Your task to perform on an android device: Open calendar and show me the second week of next month Image 0: 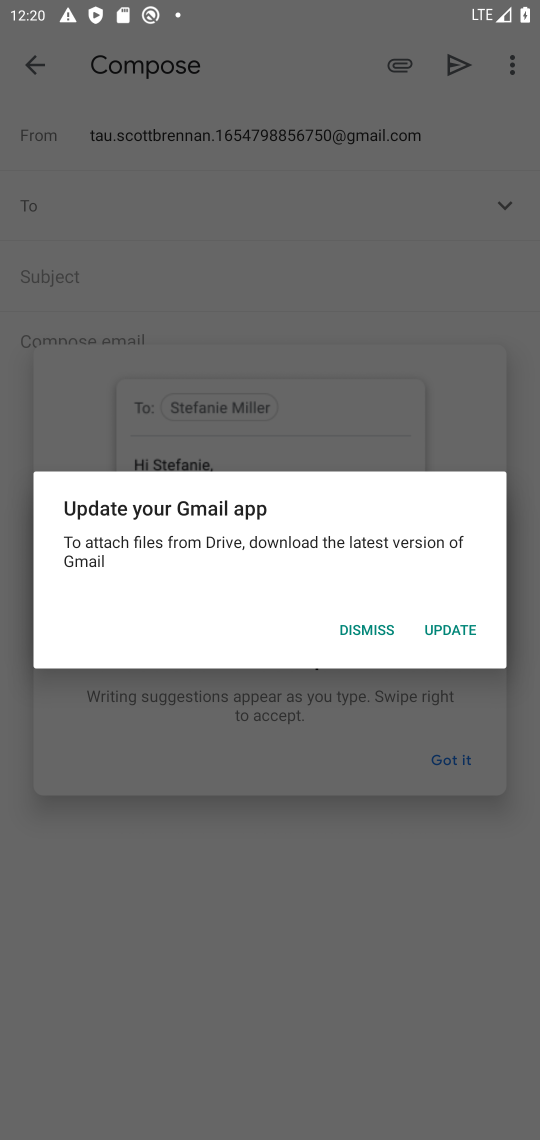
Step 0: press home button
Your task to perform on an android device: Open calendar and show me the second week of next month Image 1: 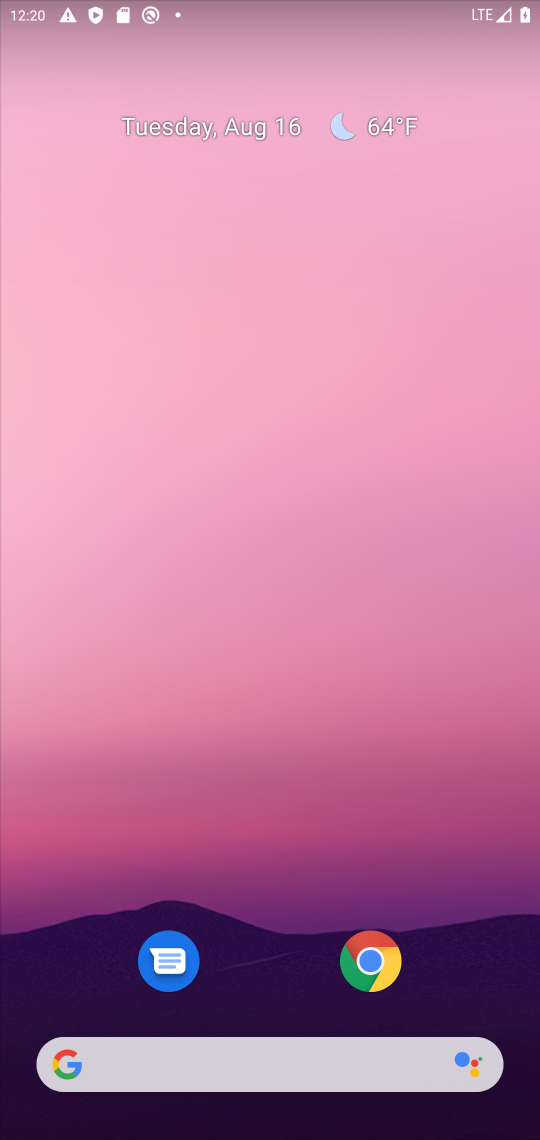
Step 1: drag from (249, 946) to (330, 3)
Your task to perform on an android device: Open calendar and show me the second week of next month Image 2: 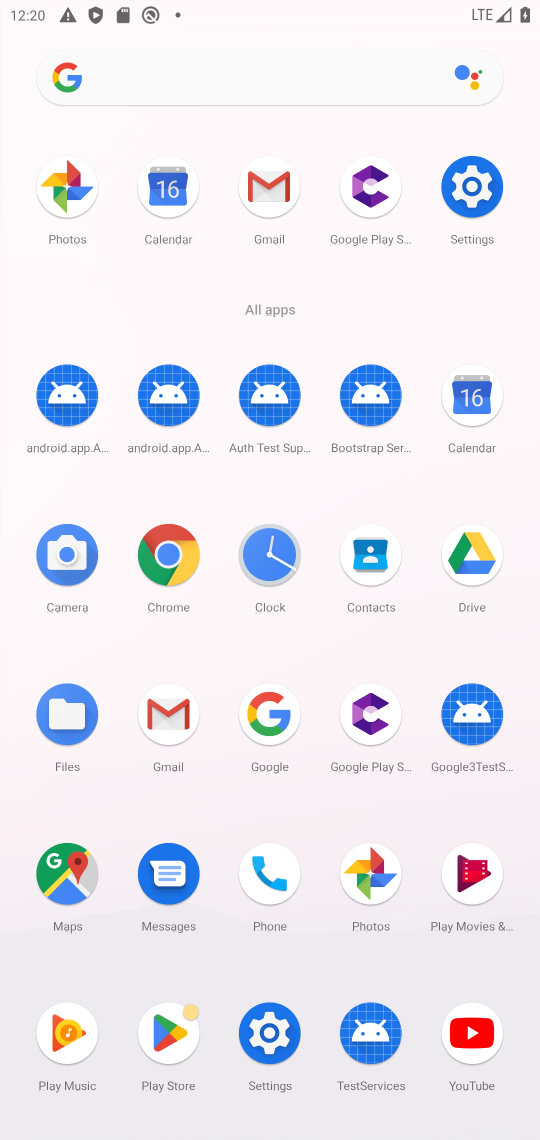
Step 2: click (472, 380)
Your task to perform on an android device: Open calendar and show me the second week of next month Image 3: 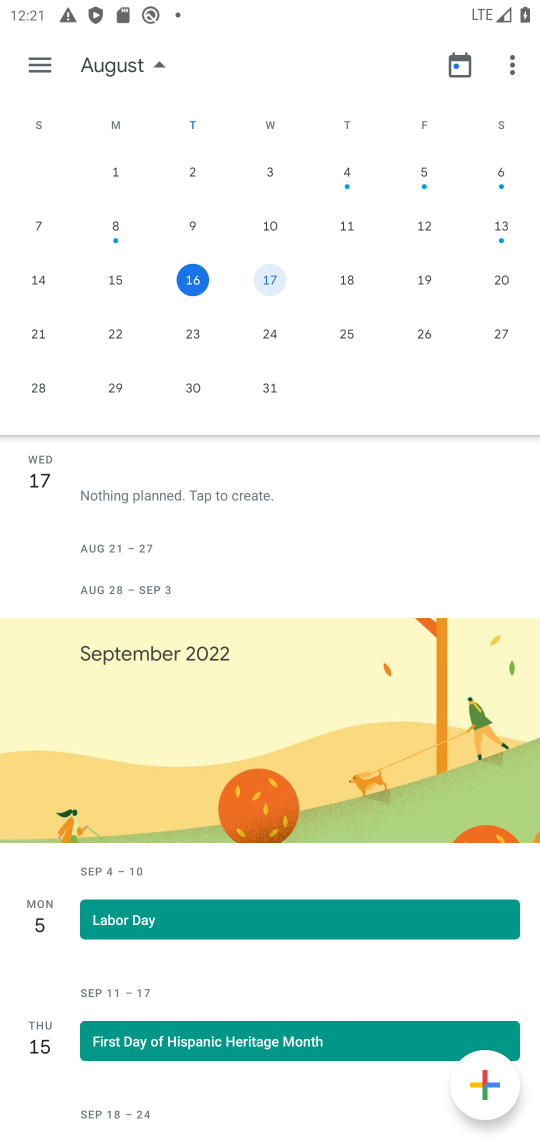
Step 3: drag from (456, 245) to (2, 251)
Your task to perform on an android device: Open calendar and show me the second week of next month Image 4: 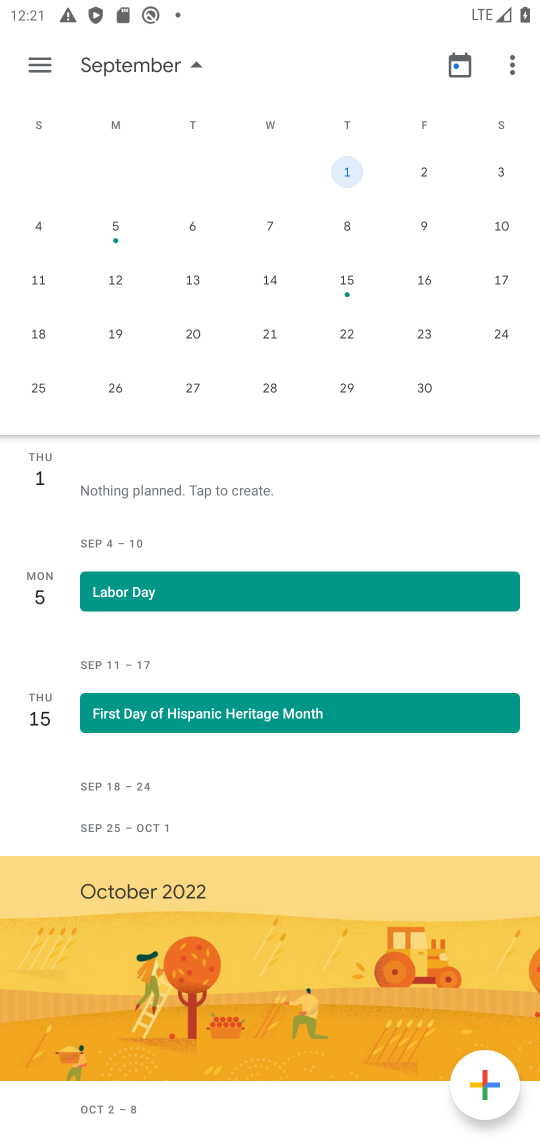
Step 4: click (103, 271)
Your task to perform on an android device: Open calendar and show me the second week of next month Image 5: 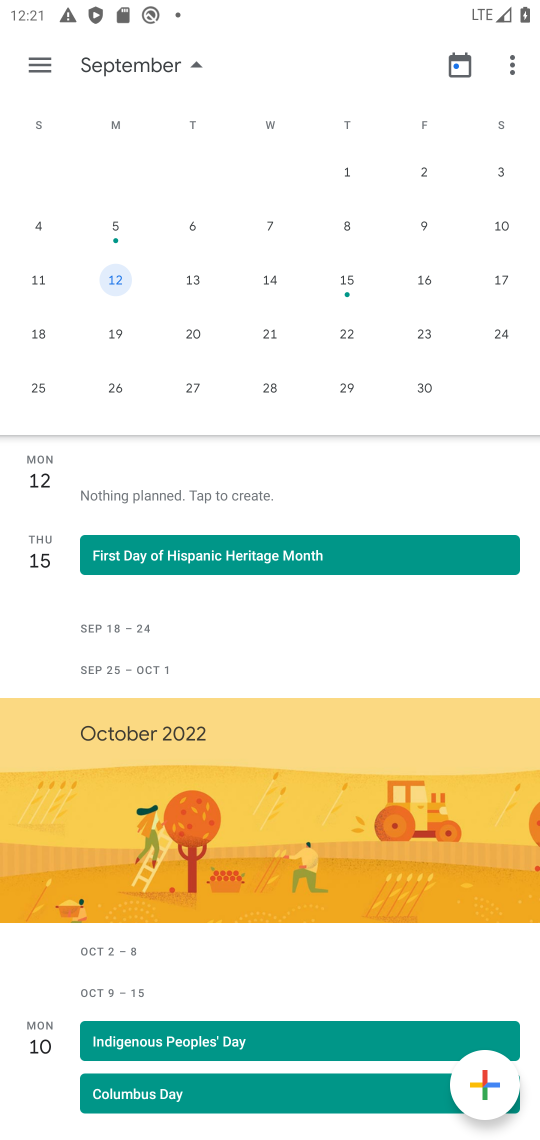
Step 5: task complete